Your task to perform on an android device: change alarm snooze length Image 0: 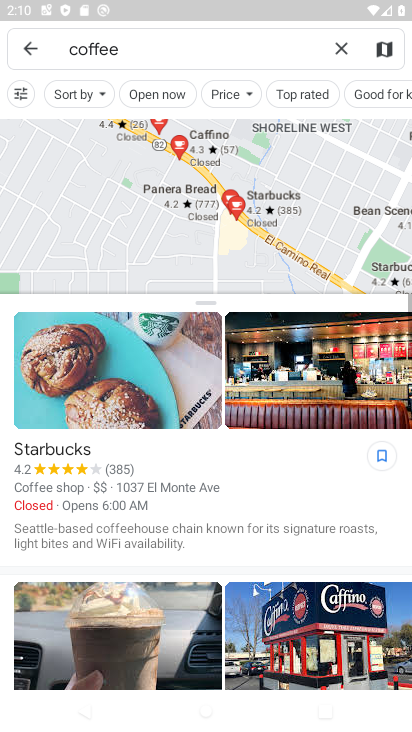
Step 0: press home button
Your task to perform on an android device: change alarm snooze length Image 1: 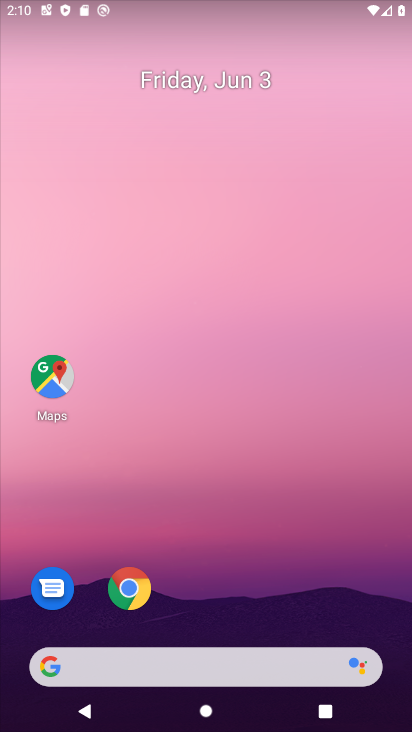
Step 1: drag from (238, 532) to (258, 195)
Your task to perform on an android device: change alarm snooze length Image 2: 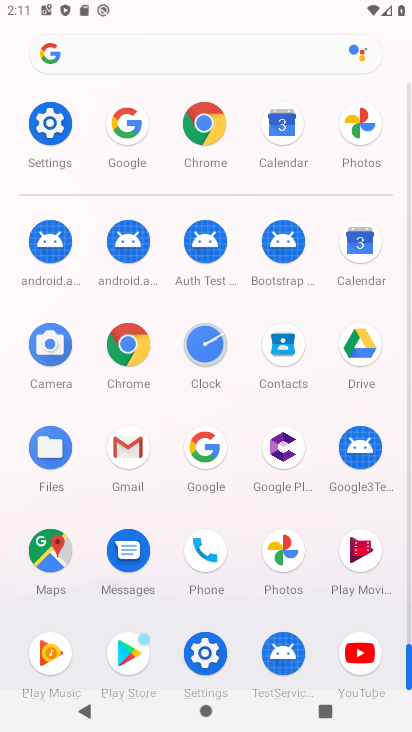
Step 2: click (209, 340)
Your task to perform on an android device: change alarm snooze length Image 3: 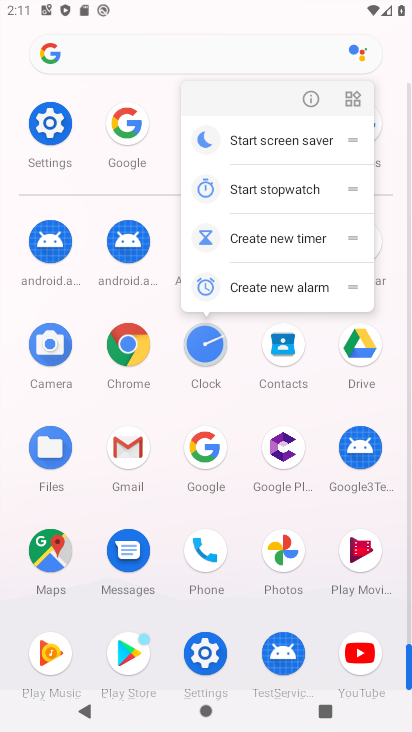
Step 3: click (212, 364)
Your task to perform on an android device: change alarm snooze length Image 4: 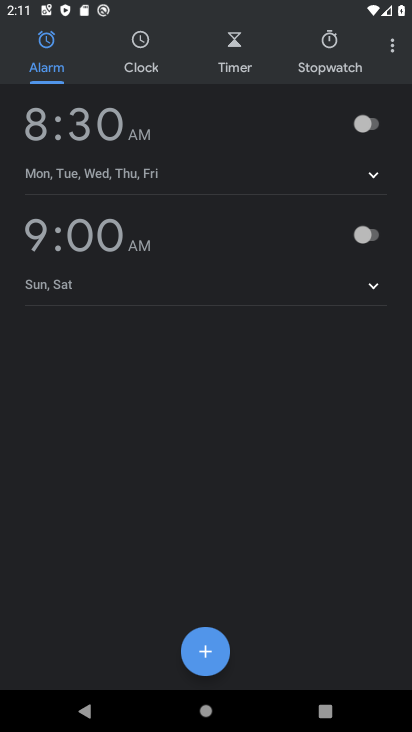
Step 4: click (388, 52)
Your task to perform on an android device: change alarm snooze length Image 5: 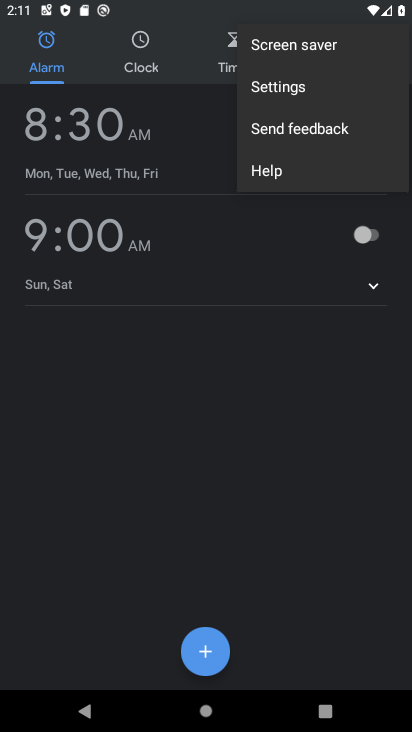
Step 5: click (306, 87)
Your task to perform on an android device: change alarm snooze length Image 6: 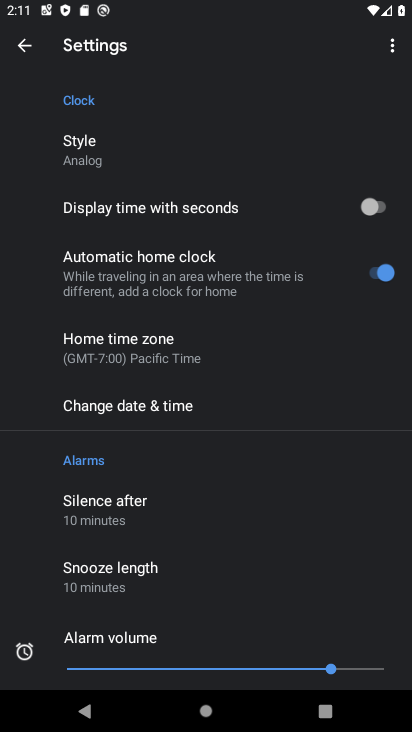
Step 6: click (160, 573)
Your task to perform on an android device: change alarm snooze length Image 7: 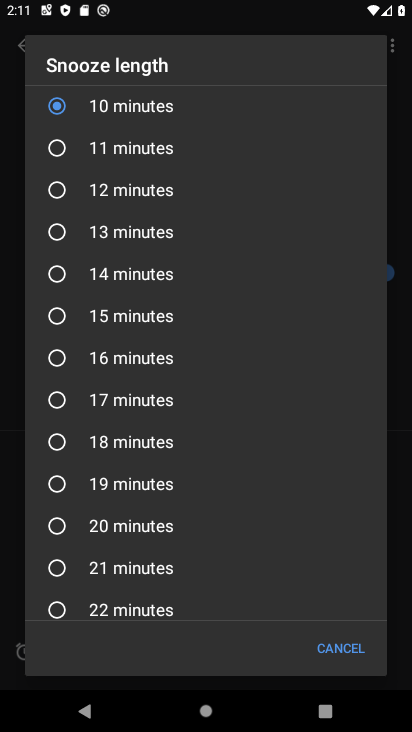
Step 7: click (105, 163)
Your task to perform on an android device: change alarm snooze length Image 8: 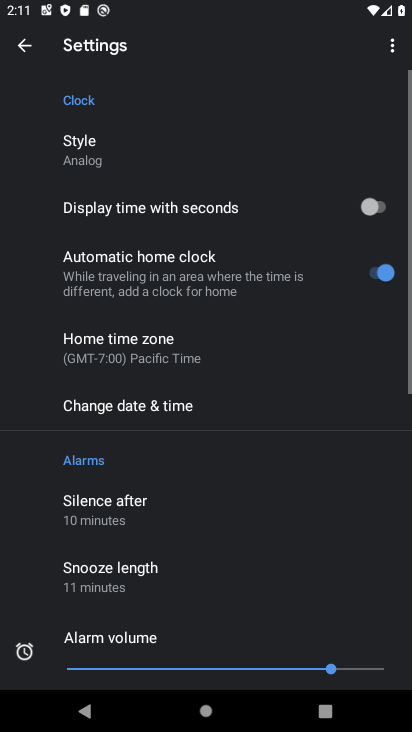
Step 8: task complete